Your task to perform on an android device: turn pop-ups off in chrome Image 0: 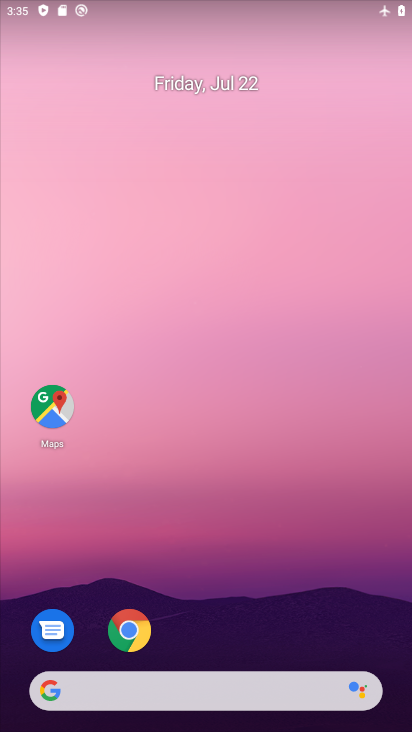
Step 0: drag from (203, 602) to (190, 160)
Your task to perform on an android device: turn pop-ups off in chrome Image 1: 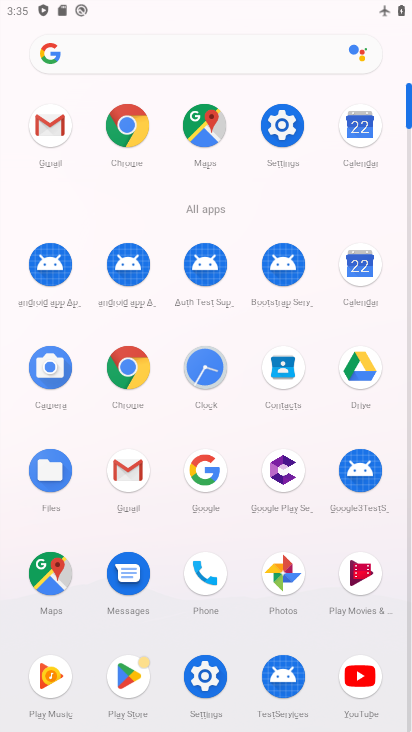
Step 1: click (112, 369)
Your task to perform on an android device: turn pop-ups off in chrome Image 2: 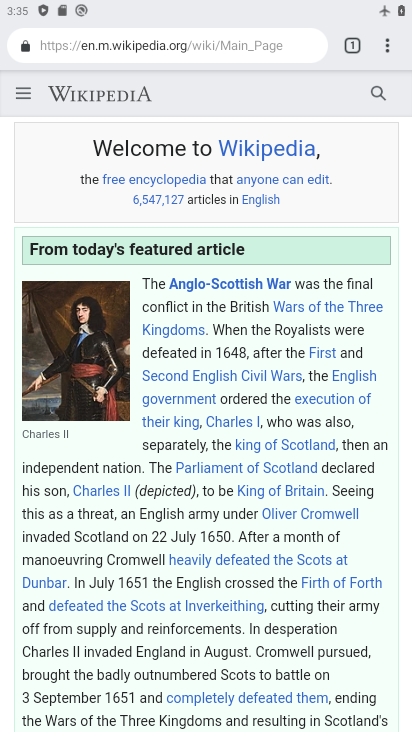
Step 2: click (380, 45)
Your task to perform on an android device: turn pop-ups off in chrome Image 3: 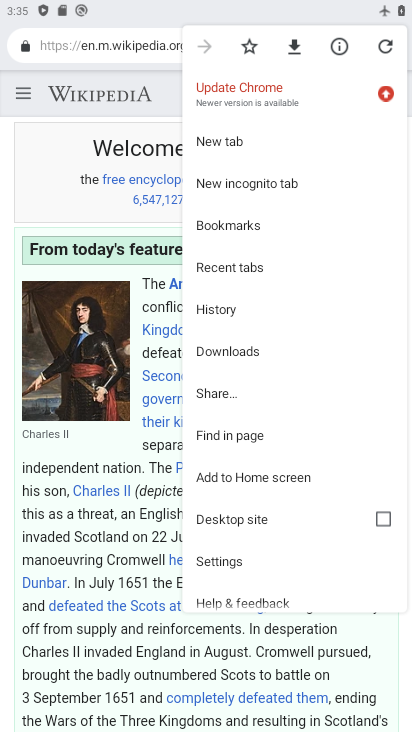
Step 3: click (210, 560)
Your task to perform on an android device: turn pop-ups off in chrome Image 4: 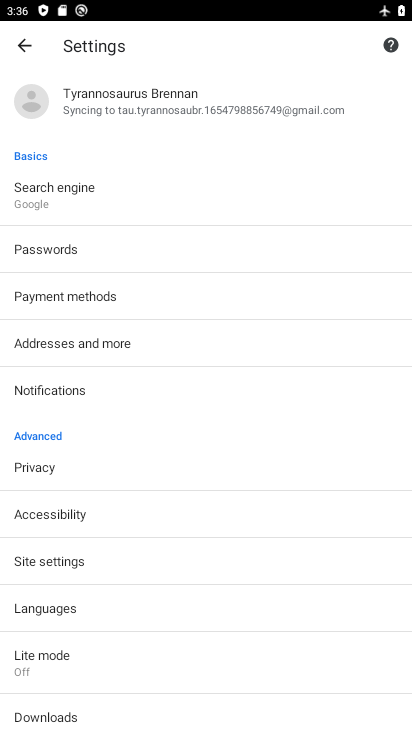
Step 4: click (68, 567)
Your task to perform on an android device: turn pop-ups off in chrome Image 5: 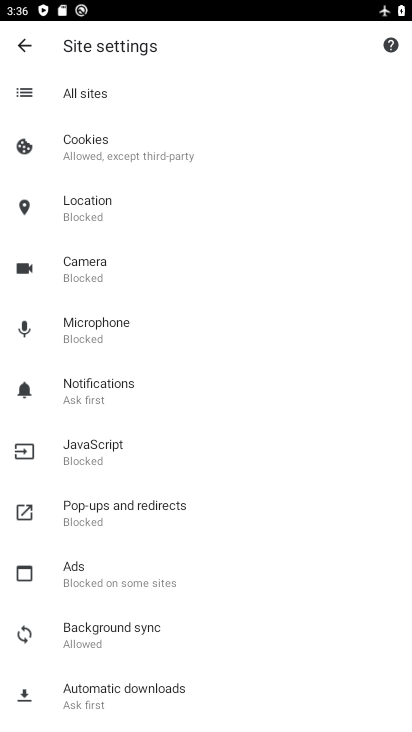
Step 5: click (102, 520)
Your task to perform on an android device: turn pop-ups off in chrome Image 6: 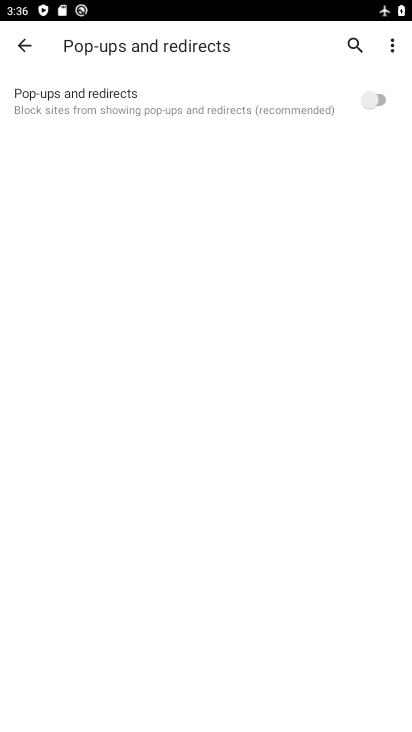
Step 6: task complete